Your task to perform on an android device: turn off smart reply in the gmail app Image 0: 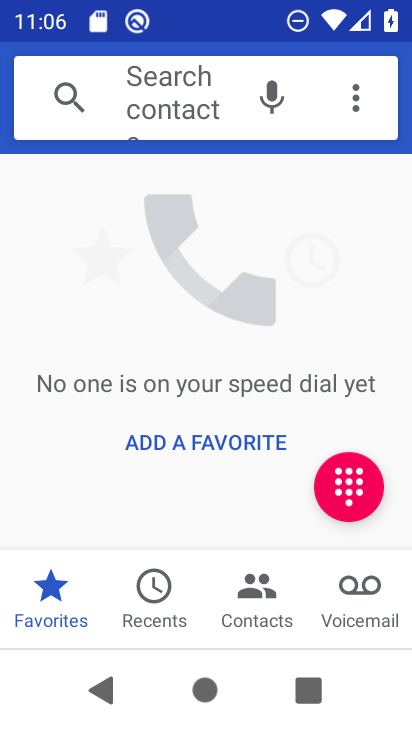
Step 0: press home button
Your task to perform on an android device: turn off smart reply in the gmail app Image 1: 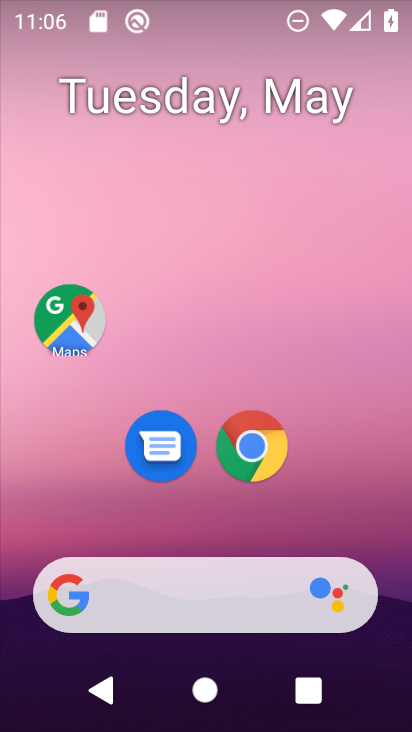
Step 1: drag from (238, 515) to (253, 3)
Your task to perform on an android device: turn off smart reply in the gmail app Image 2: 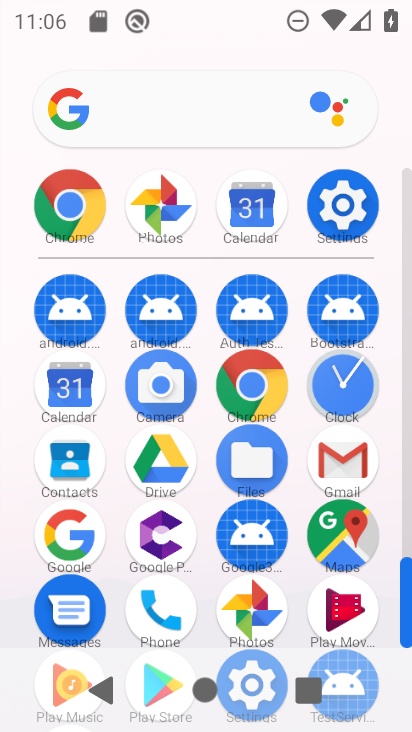
Step 2: click (348, 464)
Your task to perform on an android device: turn off smart reply in the gmail app Image 3: 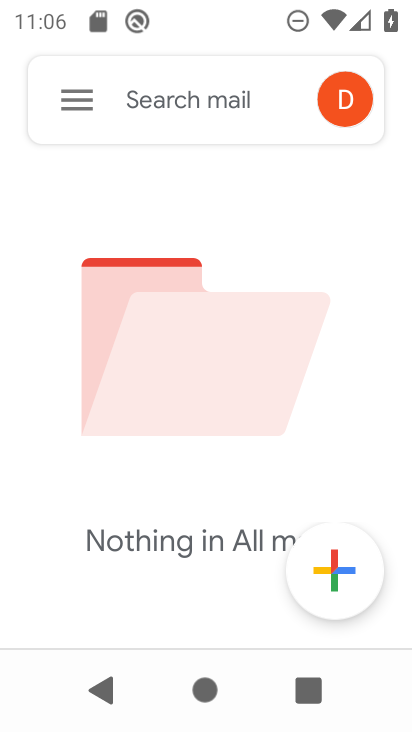
Step 3: click (51, 95)
Your task to perform on an android device: turn off smart reply in the gmail app Image 4: 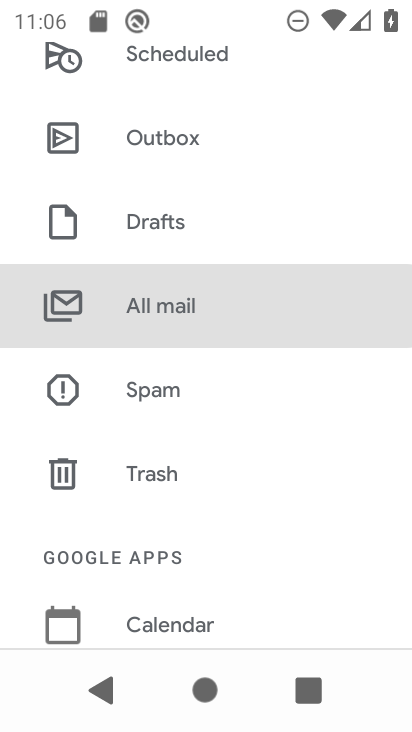
Step 4: drag from (144, 612) to (212, 241)
Your task to perform on an android device: turn off smart reply in the gmail app Image 5: 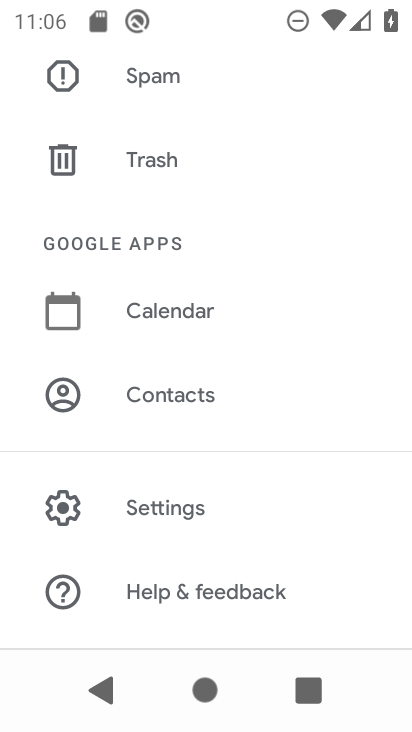
Step 5: click (168, 510)
Your task to perform on an android device: turn off smart reply in the gmail app Image 6: 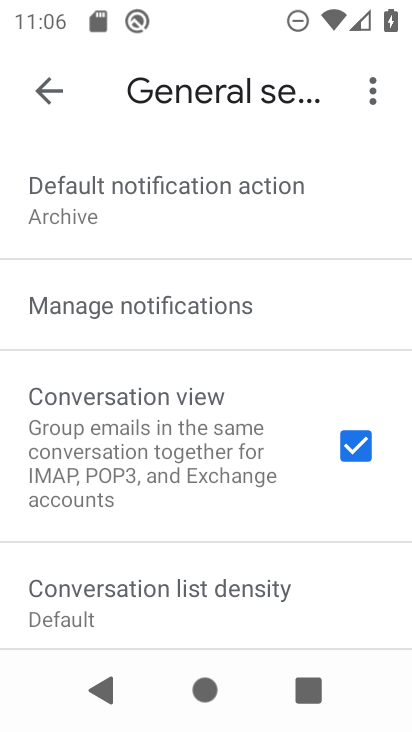
Step 6: click (51, 98)
Your task to perform on an android device: turn off smart reply in the gmail app Image 7: 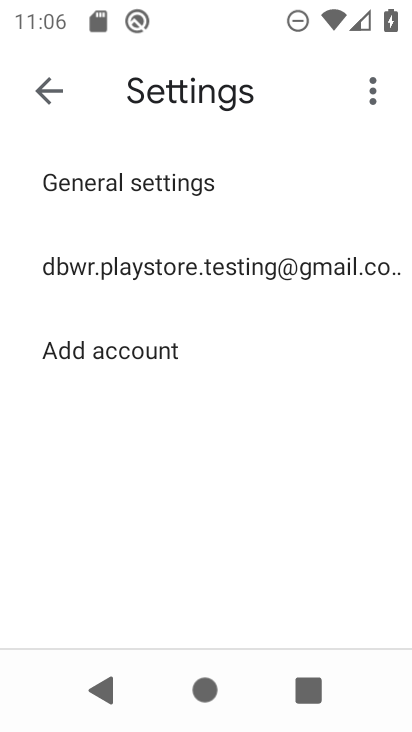
Step 7: click (182, 289)
Your task to perform on an android device: turn off smart reply in the gmail app Image 8: 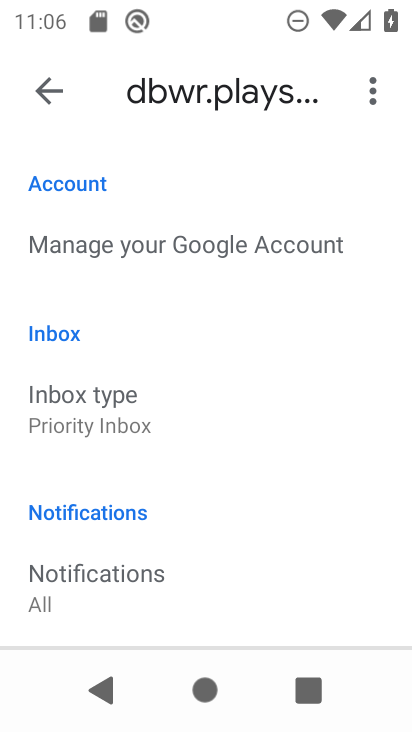
Step 8: drag from (207, 521) to (224, 77)
Your task to perform on an android device: turn off smart reply in the gmail app Image 9: 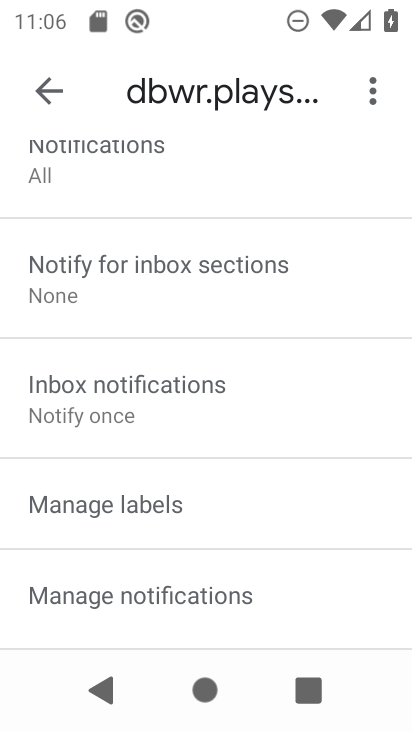
Step 9: drag from (204, 545) to (233, 265)
Your task to perform on an android device: turn off smart reply in the gmail app Image 10: 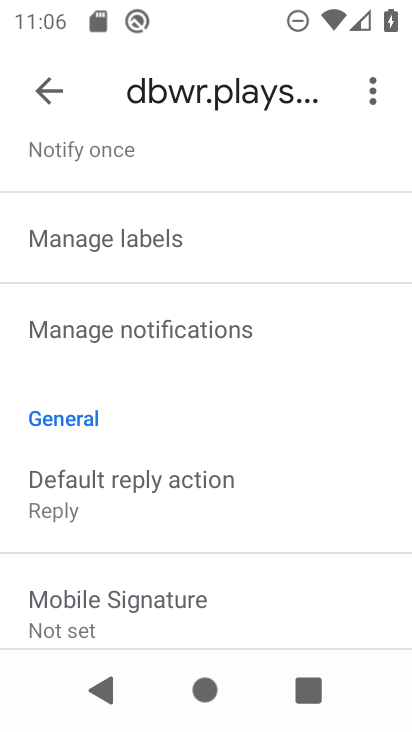
Step 10: drag from (207, 580) to (266, 261)
Your task to perform on an android device: turn off smart reply in the gmail app Image 11: 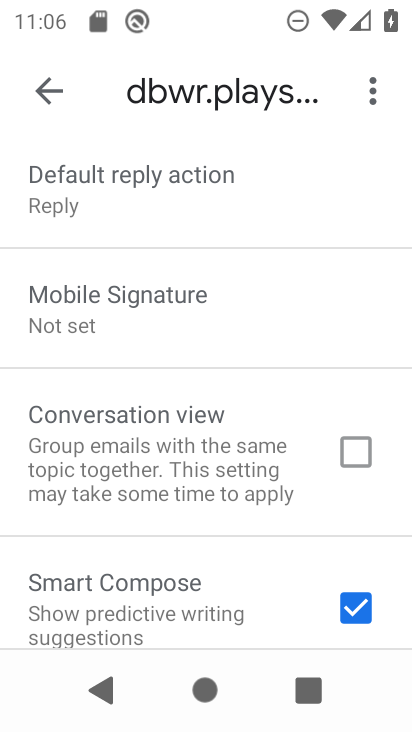
Step 11: drag from (214, 544) to (221, 221)
Your task to perform on an android device: turn off smart reply in the gmail app Image 12: 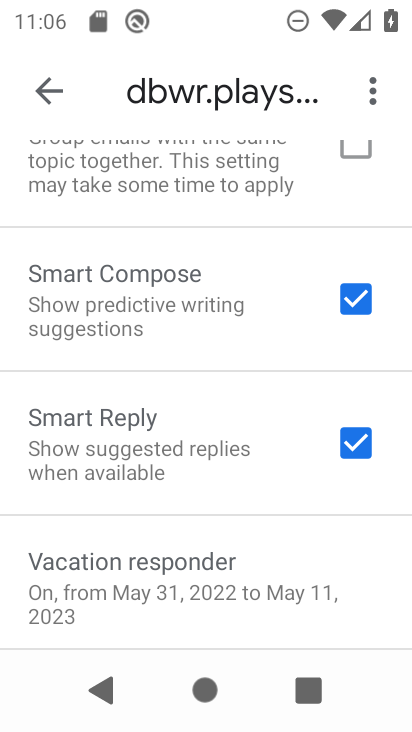
Step 12: click (341, 442)
Your task to perform on an android device: turn off smart reply in the gmail app Image 13: 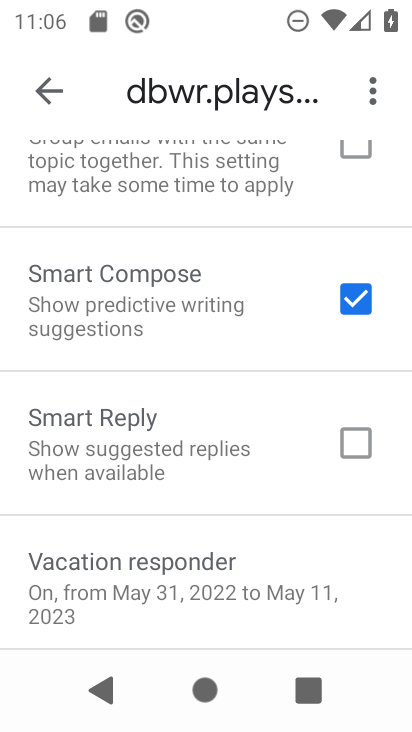
Step 13: task complete